Your task to perform on an android device: Open Youtube and go to the subscriptions tab Image 0: 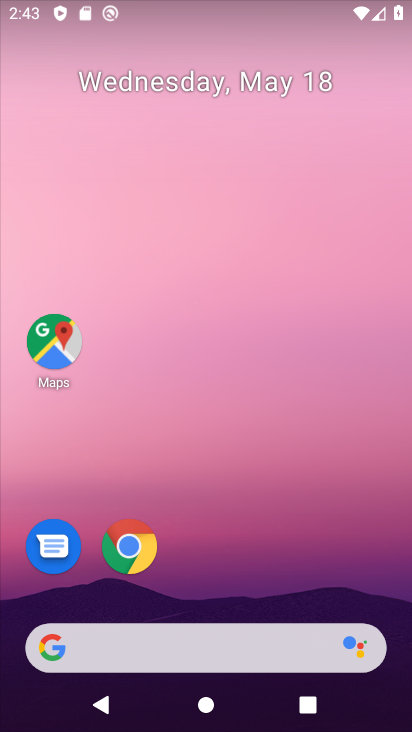
Step 0: drag from (224, 585) to (278, 140)
Your task to perform on an android device: Open Youtube and go to the subscriptions tab Image 1: 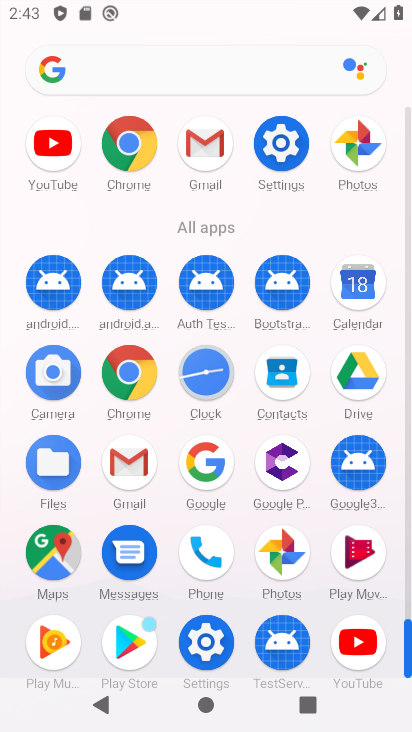
Step 1: click (335, 638)
Your task to perform on an android device: Open Youtube and go to the subscriptions tab Image 2: 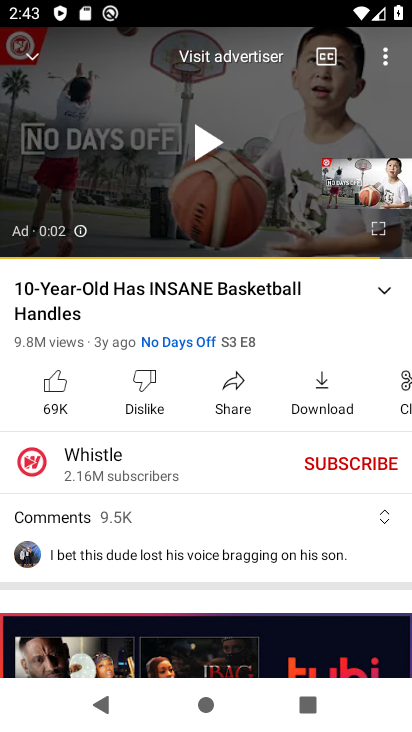
Step 2: press back button
Your task to perform on an android device: Open Youtube and go to the subscriptions tab Image 3: 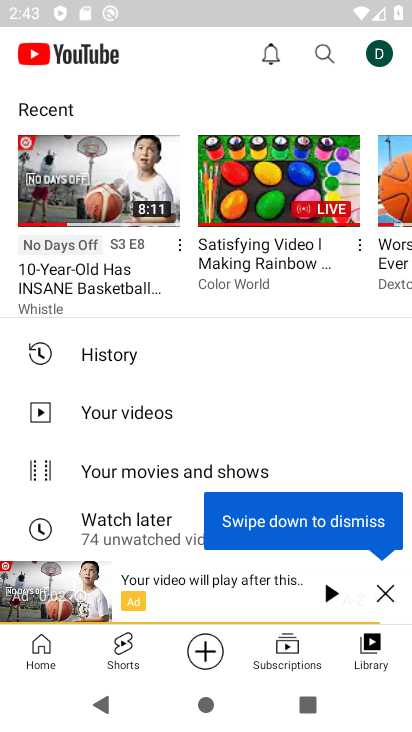
Step 3: click (299, 650)
Your task to perform on an android device: Open Youtube and go to the subscriptions tab Image 4: 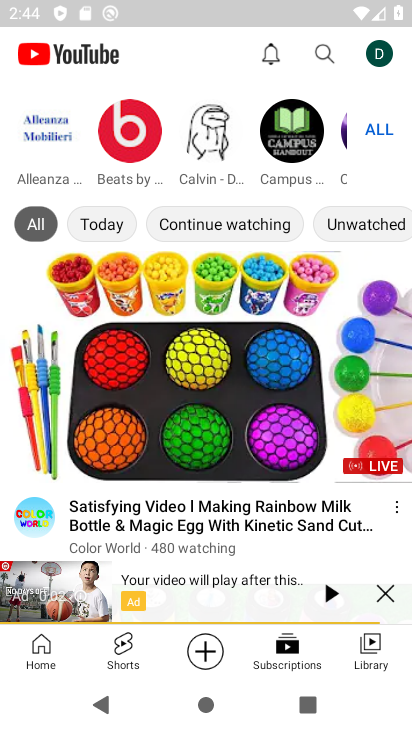
Step 4: task complete